Your task to perform on an android device: turn off picture-in-picture Image 0: 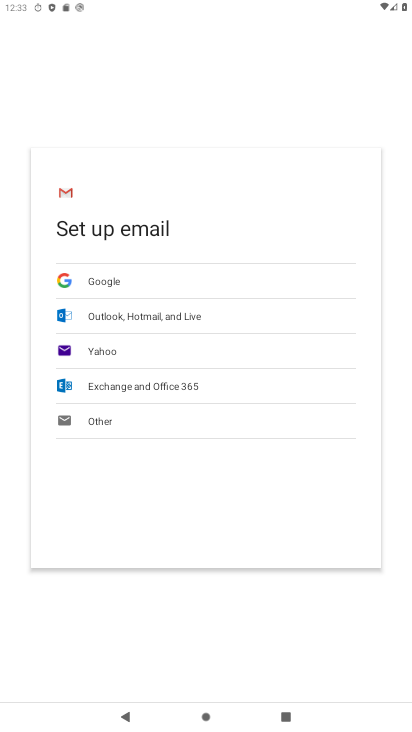
Step 0: press home button
Your task to perform on an android device: turn off picture-in-picture Image 1: 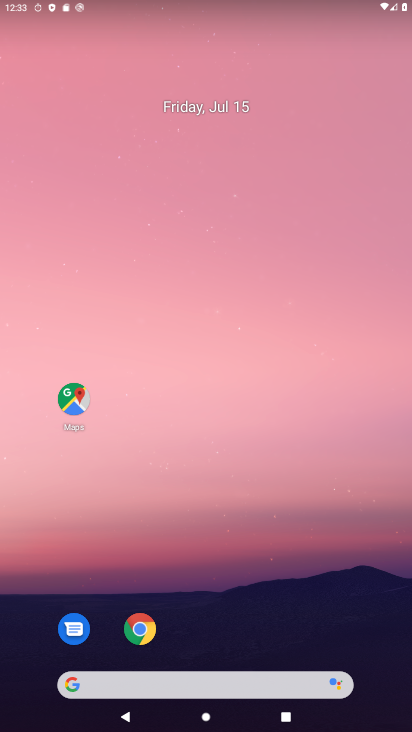
Step 1: click (142, 637)
Your task to perform on an android device: turn off picture-in-picture Image 2: 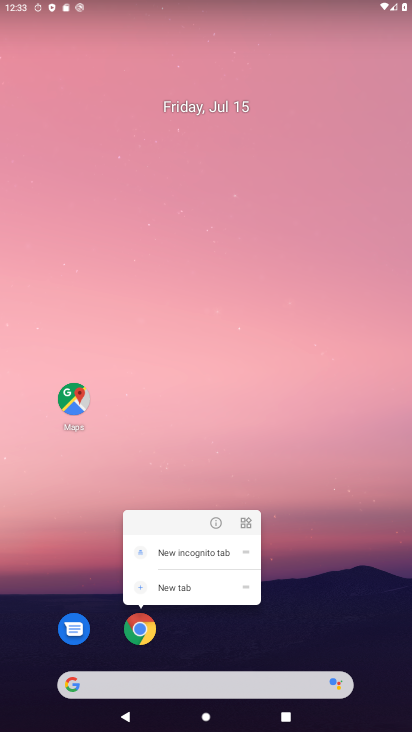
Step 2: click (212, 518)
Your task to perform on an android device: turn off picture-in-picture Image 3: 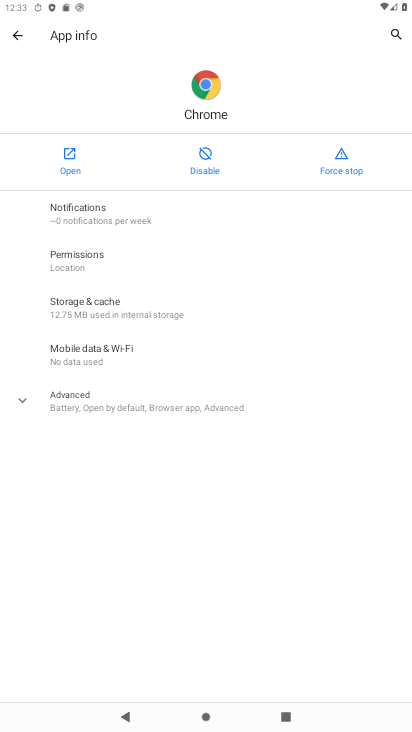
Step 3: click (114, 405)
Your task to perform on an android device: turn off picture-in-picture Image 4: 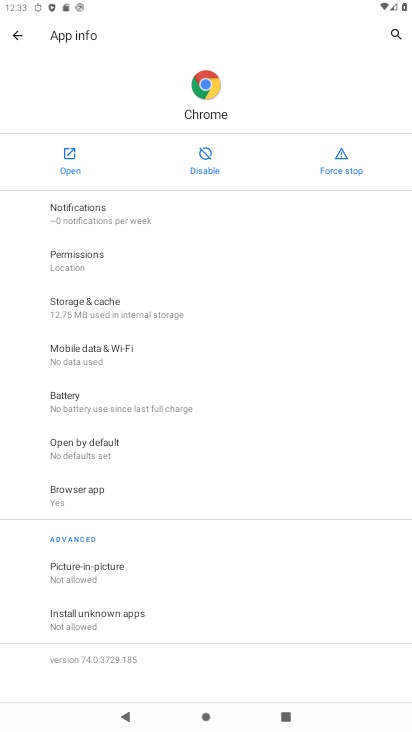
Step 4: click (110, 579)
Your task to perform on an android device: turn off picture-in-picture Image 5: 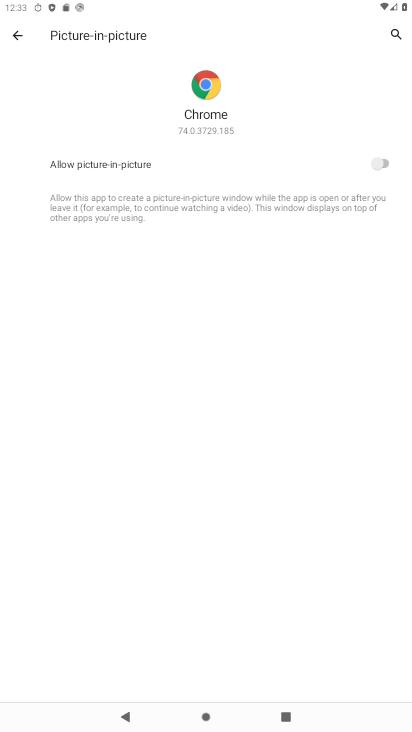
Step 5: task complete